Your task to perform on an android device: toggle pop-ups in chrome Image 0: 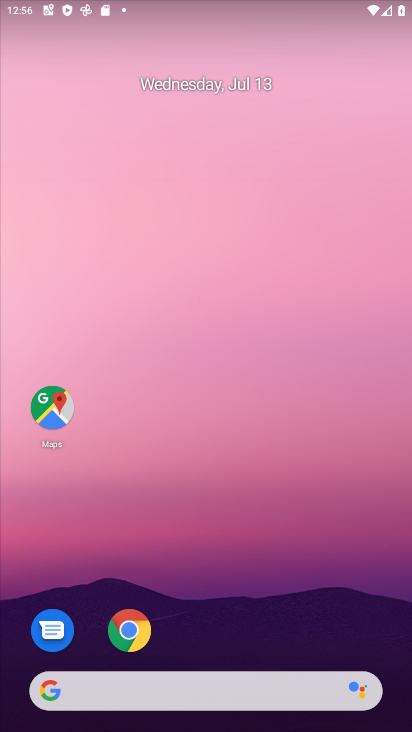
Step 0: drag from (389, 653) to (300, 35)
Your task to perform on an android device: toggle pop-ups in chrome Image 1: 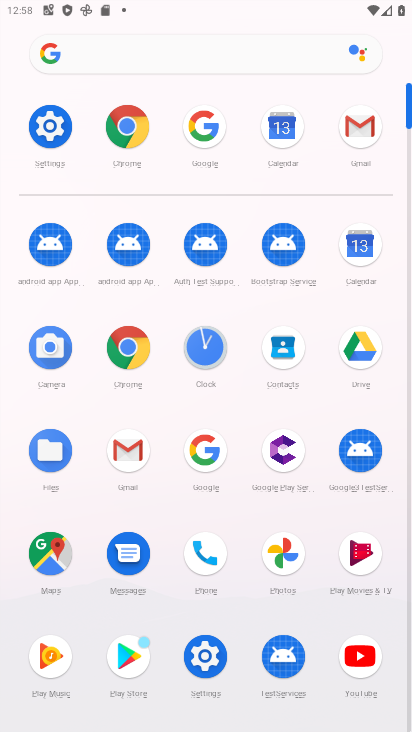
Step 1: click (116, 348)
Your task to perform on an android device: toggle pop-ups in chrome Image 2: 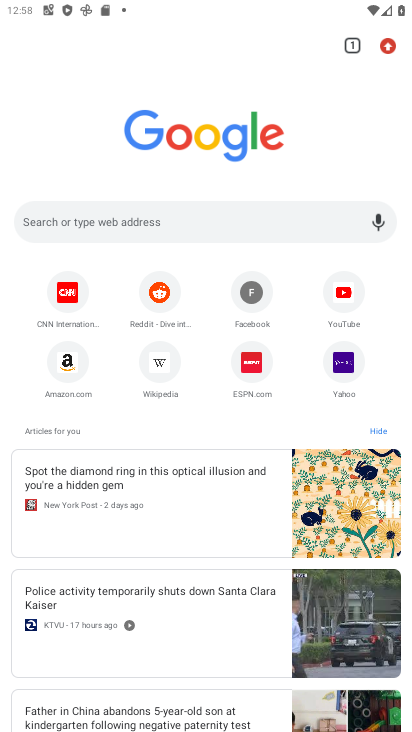
Step 2: click (395, 38)
Your task to perform on an android device: toggle pop-ups in chrome Image 3: 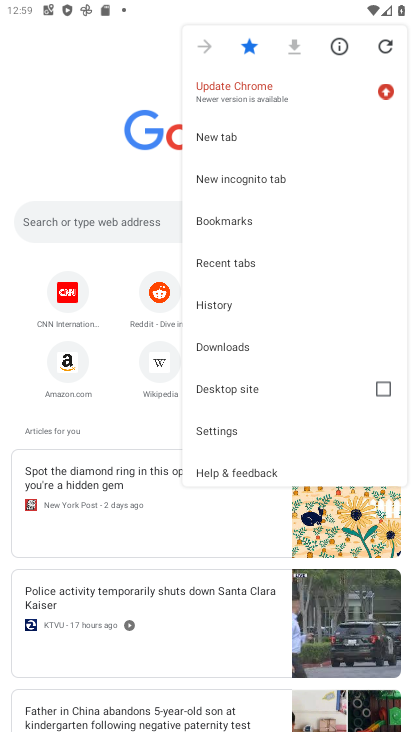
Step 3: click (227, 426)
Your task to perform on an android device: toggle pop-ups in chrome Image 4: 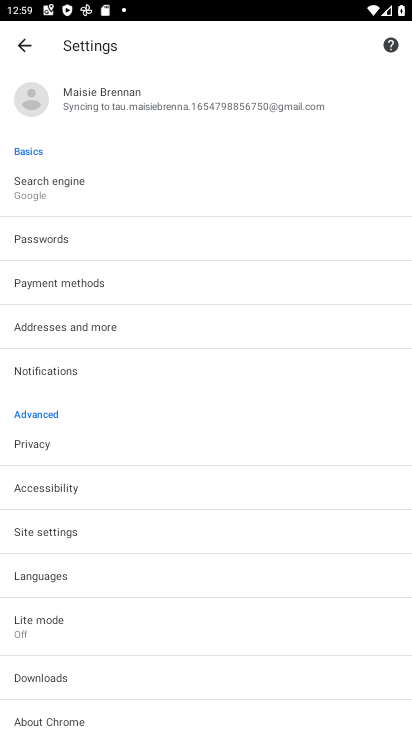
Step 4: click (107, 540)
Your task to perform on an android device: toggle pop-ups in chrome Image 5: 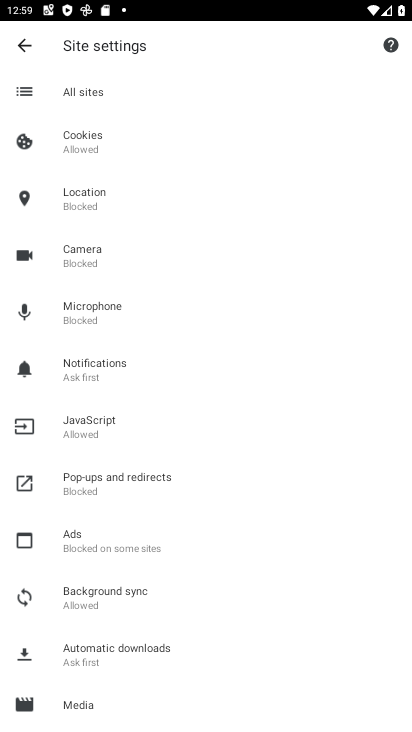
Step 5: click (178, 501)
Your task to perform on an android device: toggle pop-ups in chrome Image 6: 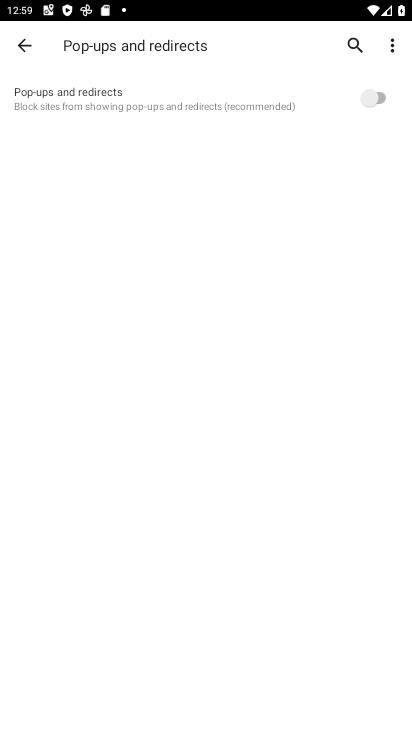
Step 6: click (387, 96)
Your task to perform on an android device: toggle pop-ups in chrome Image 7: 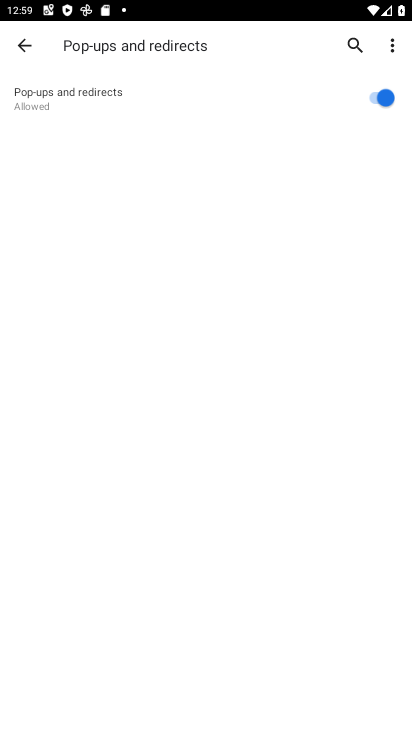
Step 7: task complete